Your task to perform on an android device: Open Google Chrome Image 0: 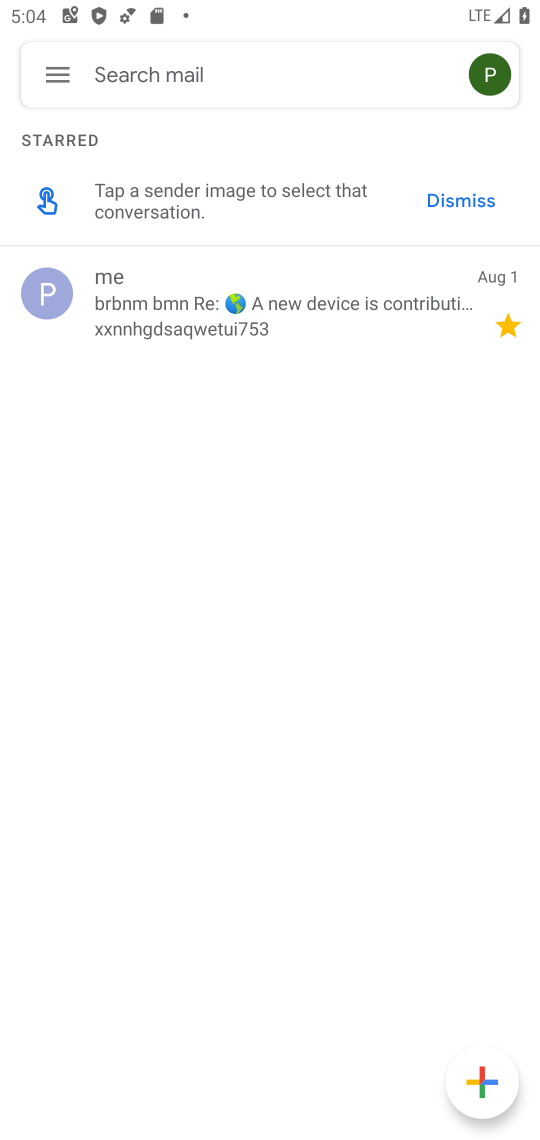
Step 0: press home button
Your task to perform on an android device: Open Google Chrome Image 1: 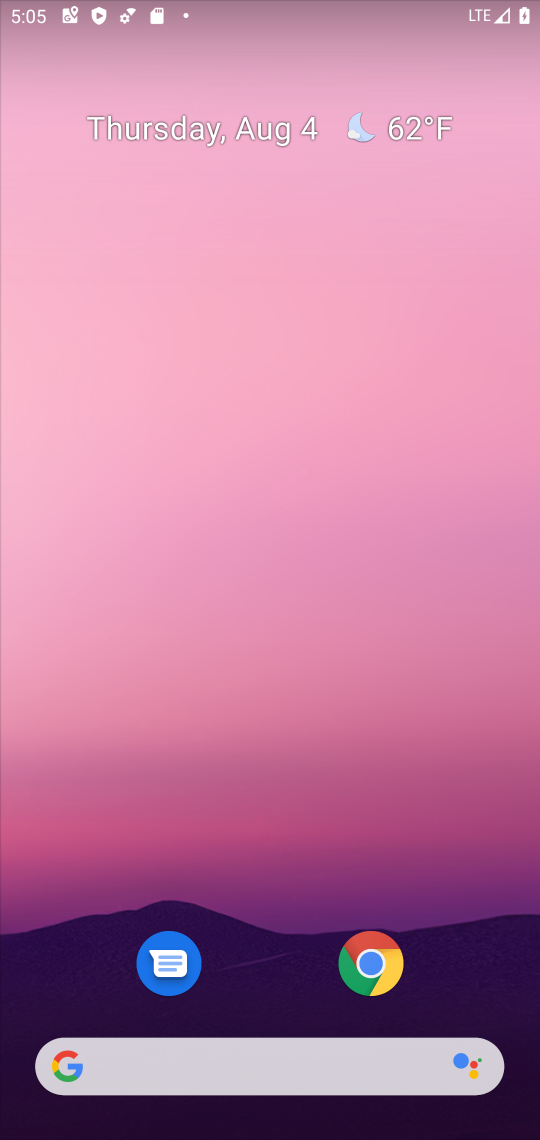
Step 1: click (373, 958)
Your task to perform on an android device: Open Google Chrome Image 2: 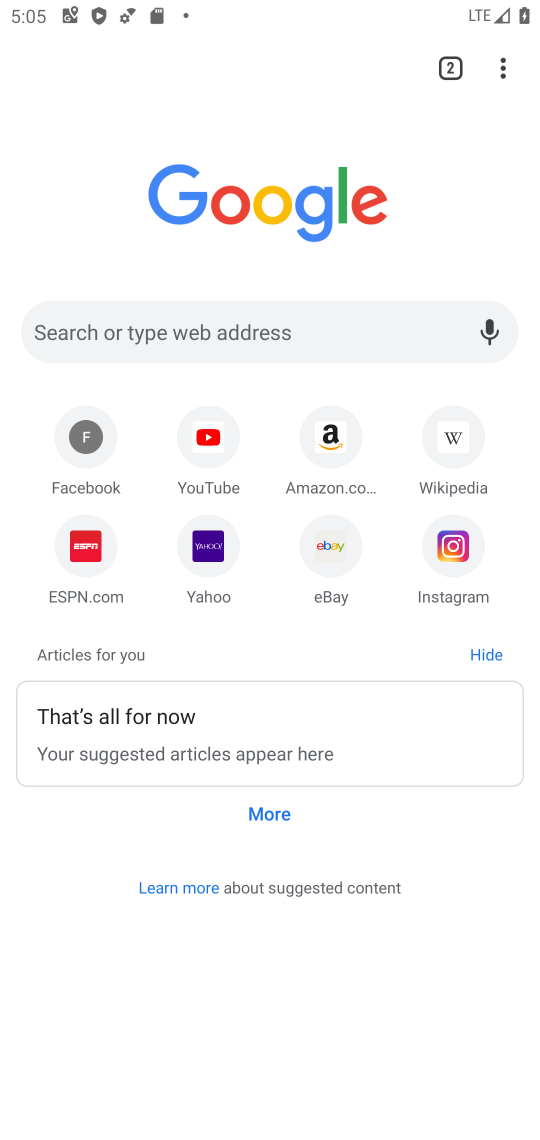
Step 2: task complete